Your task to perform on an android device: Open wifi settings Image 0: 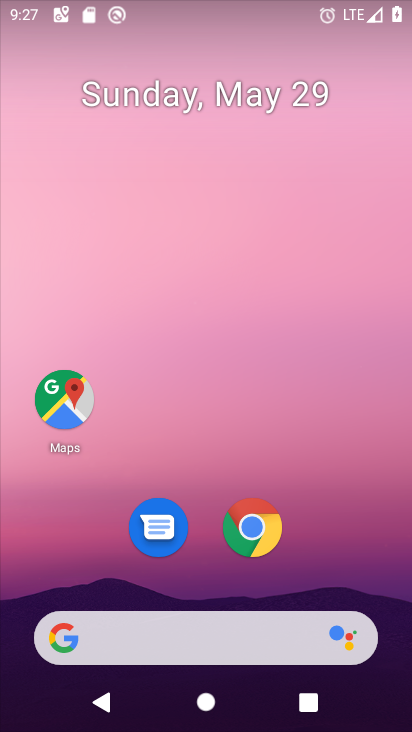
Step 0: press home button
Your task to perform on an android device: Open wifi settings Image 1: 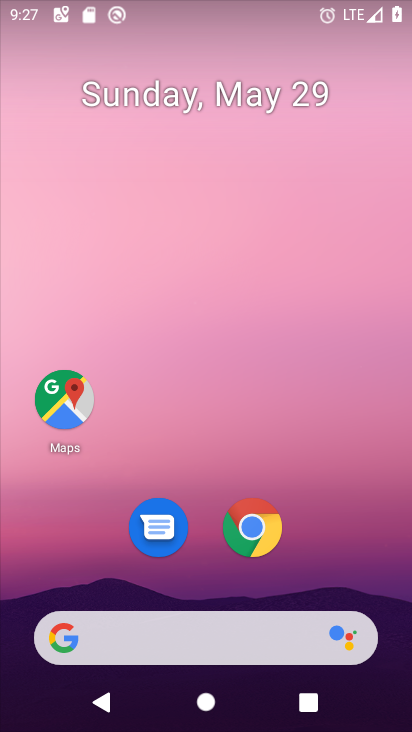
Step 1: drag from (202, 577) to (215, 102)
Your task to perform on an android device: Open wifi settings Image 2: 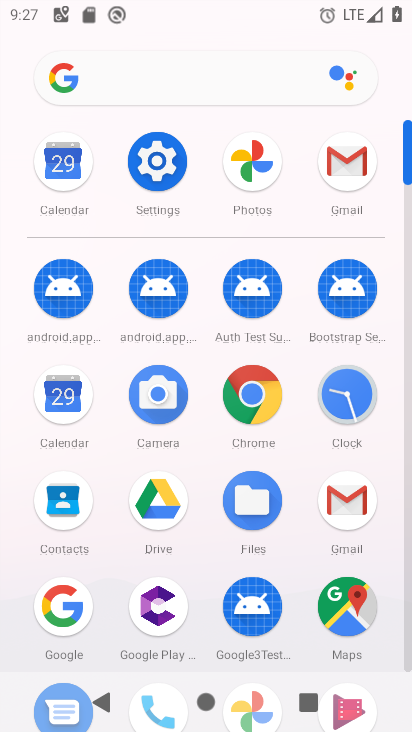
Step 2: click (155, 150)
Your task to perform on an android device: Open wifi settings Image 3: 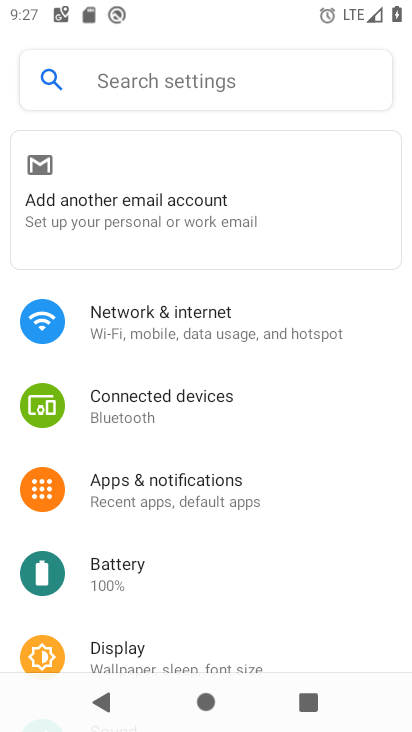
Step 3: click (161, 327)
Your task to perform on an android device: Open wifi settings Image 4: 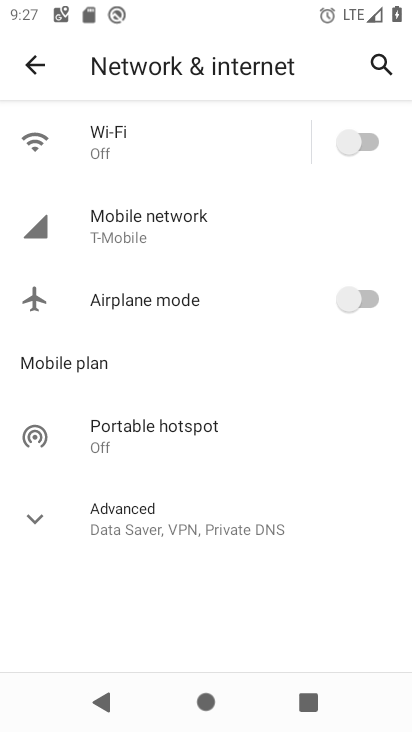
Step 4: click (152, 139)
Your task to perform on an android device: Open wifi settings Image 5: 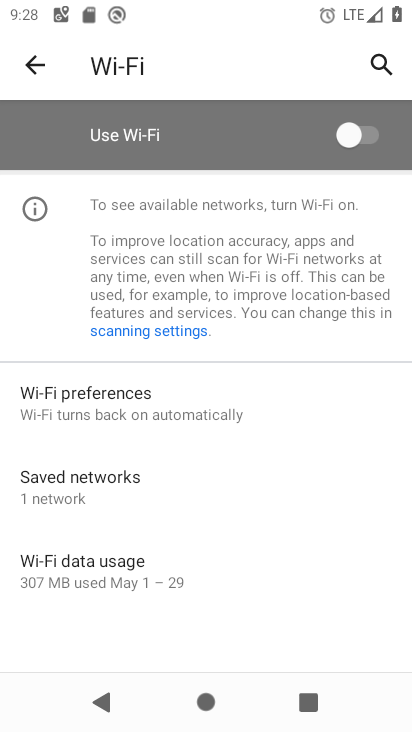
Step 5: click (355, 135)
Your task to perform on an android device: Open wifi settings Image 6: 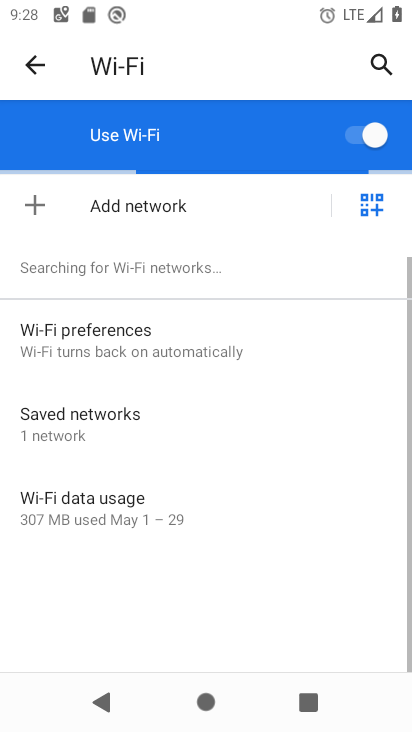
Step 6: task complete